Your task to perform on an android device: Search for pizza restaurants on Maps Image 0: 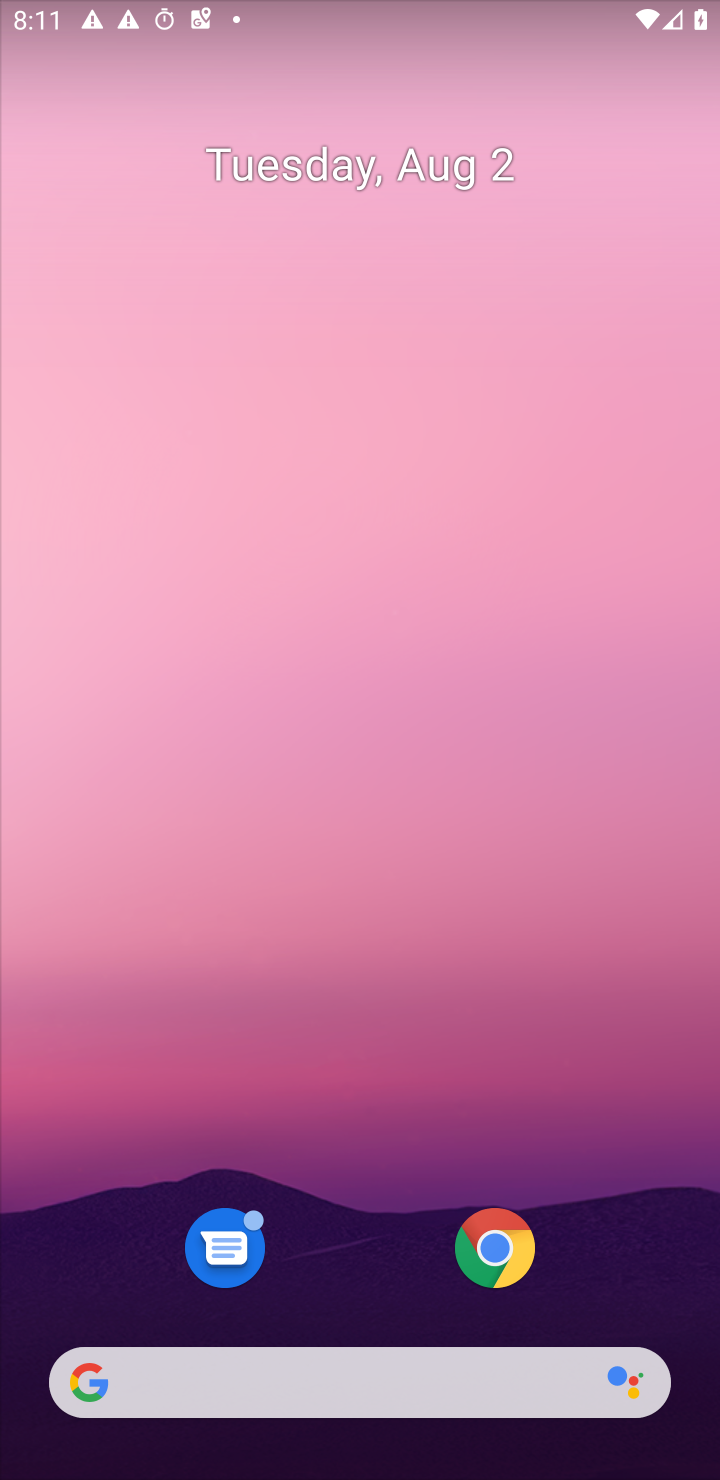
Step 0: drag from (289, 1246) to (462, 199)
Your task to perform on an android device: Search for pizza restaurants on Maps Image 1: 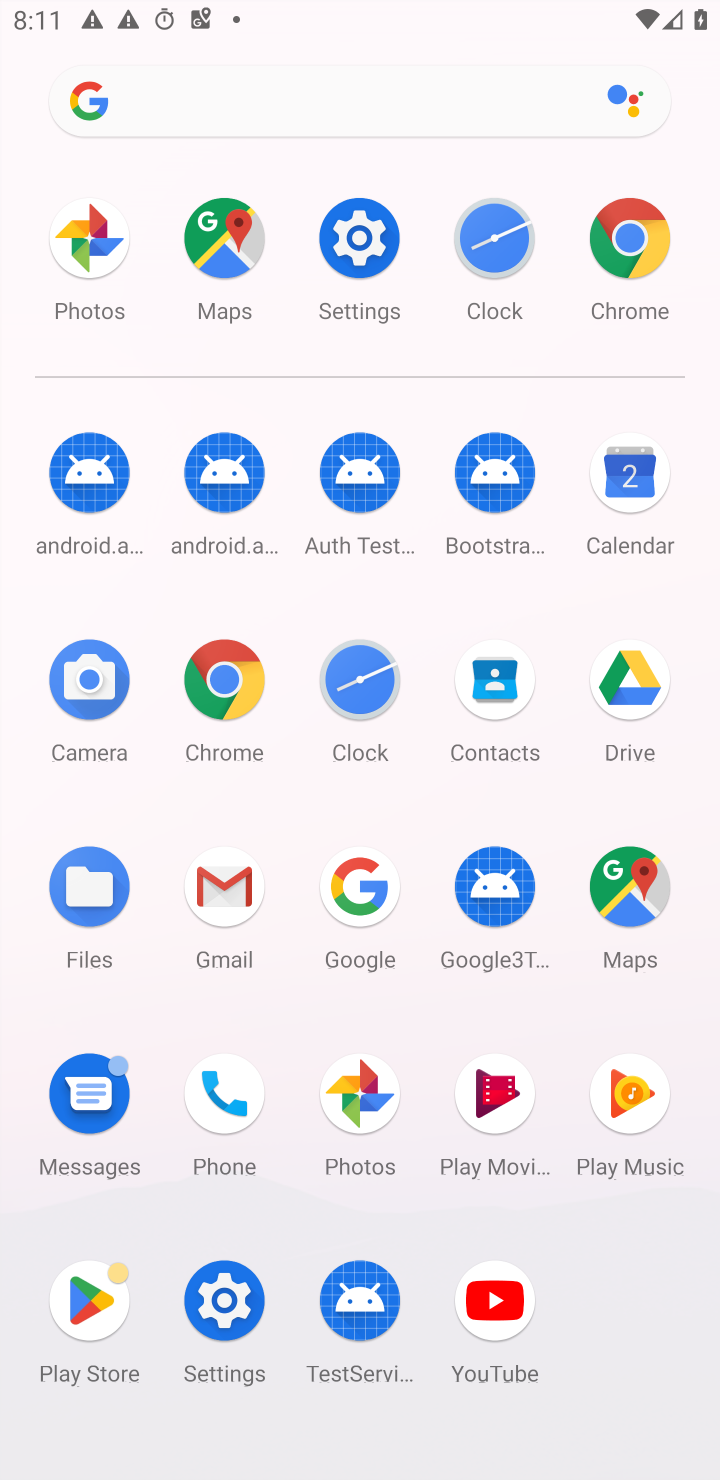
Step 1: click (624, 907)
Your task to perform on an android device: Search for pizza restaurants on Maps Image 2: 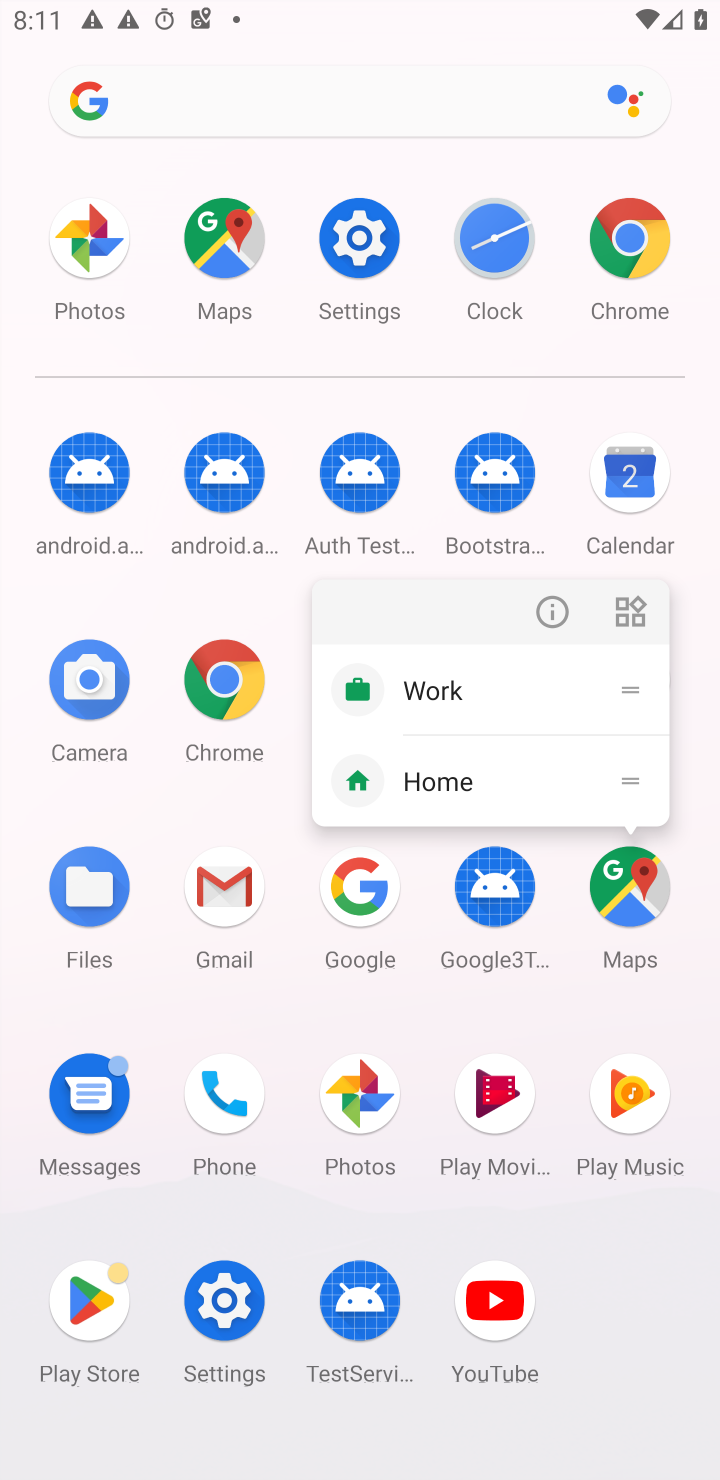
Step 2: click (546, 587)
Your task to perform on an android device: Search for pizza restaurants on Maps Image 3: 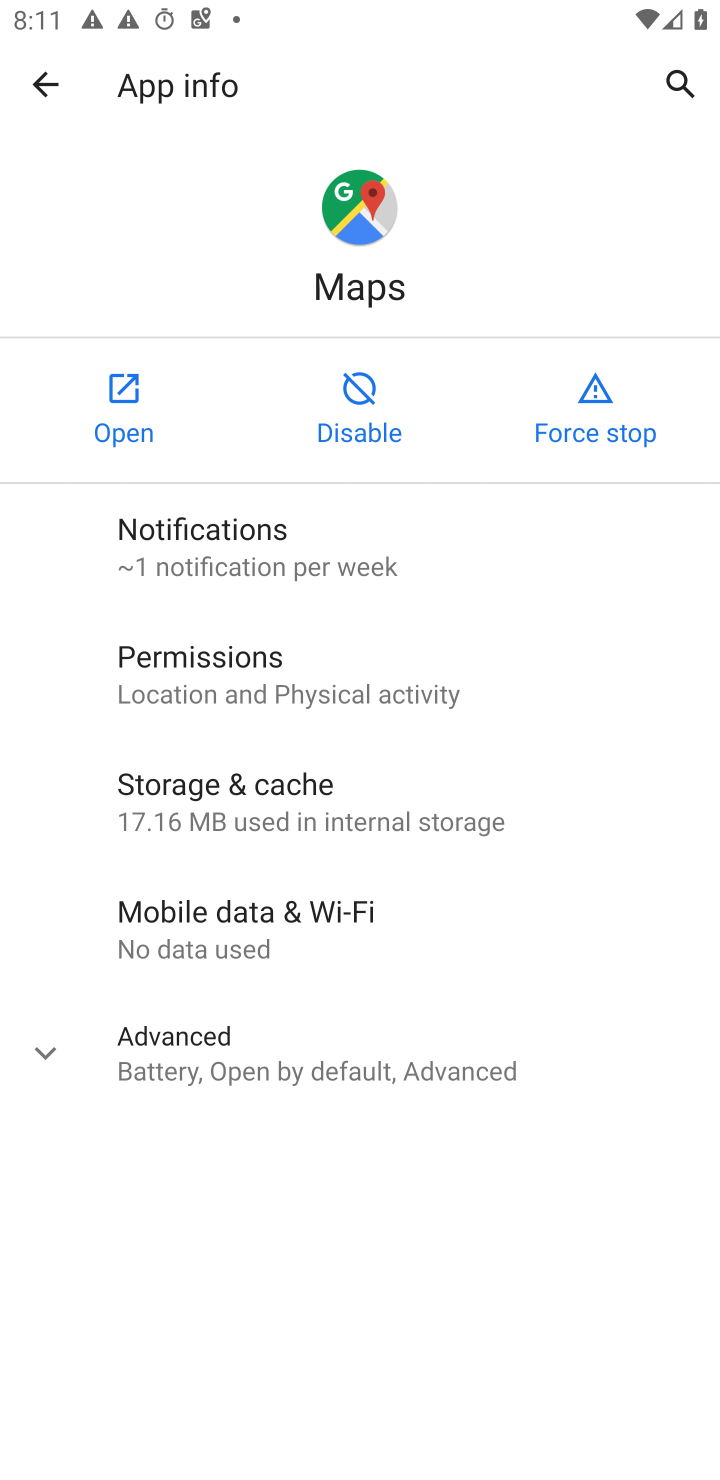
Step 3: click (124, 423)
Your task to perform on an android device: Search for pizza restaurants on Maps Image 4: 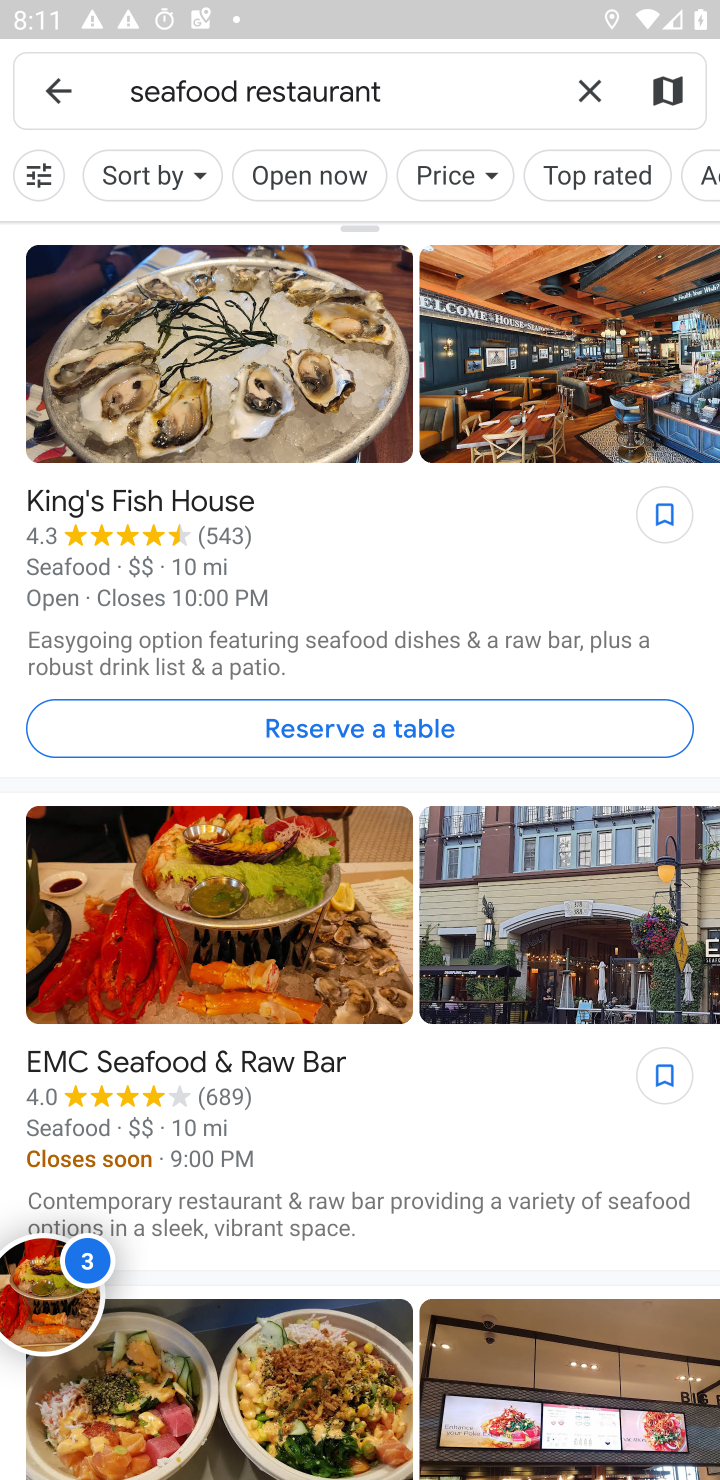
Step 4: click (587, 88)
Your task to perform on an android device: Search for pizza restaurants on Maps Image 5: 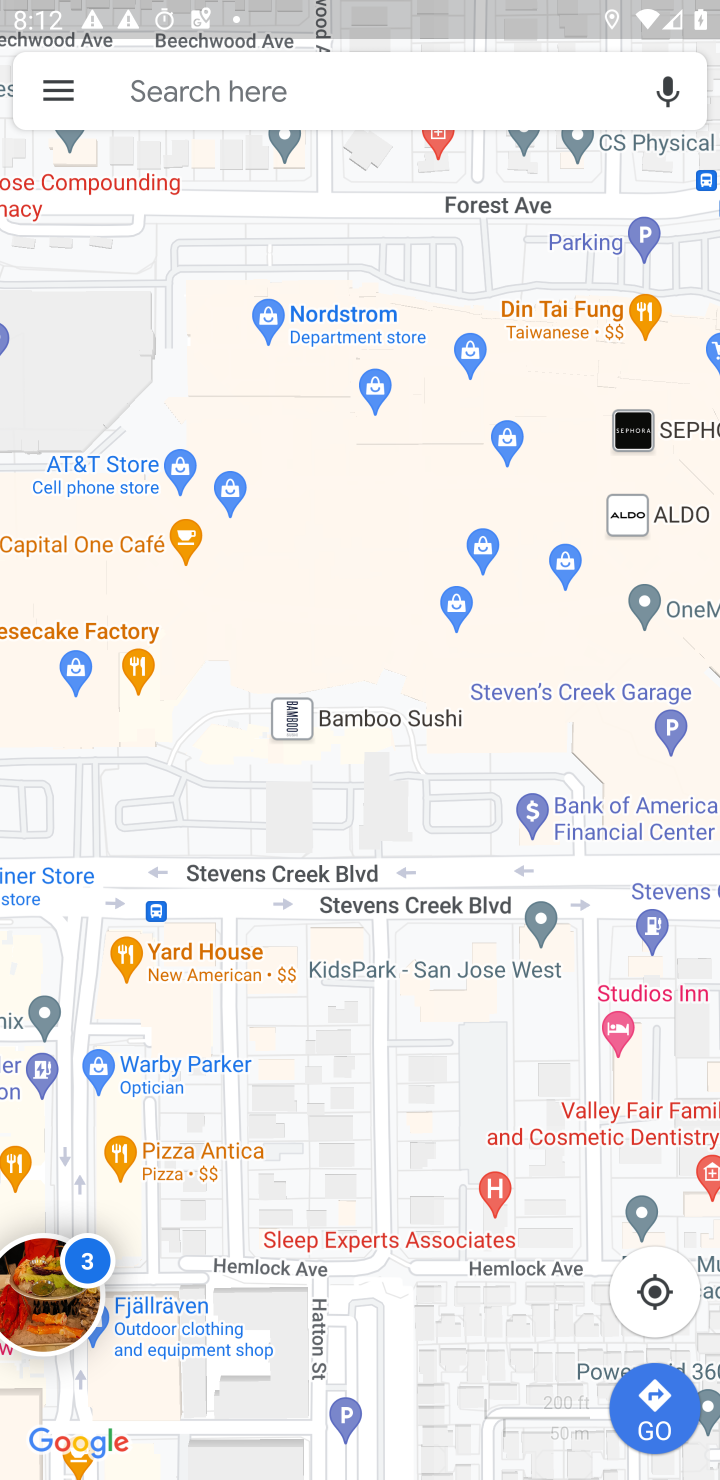
Step 5: click (193, 88)
Your task to perform on an android device: Search for pizza restaurants on Maps Image 6: 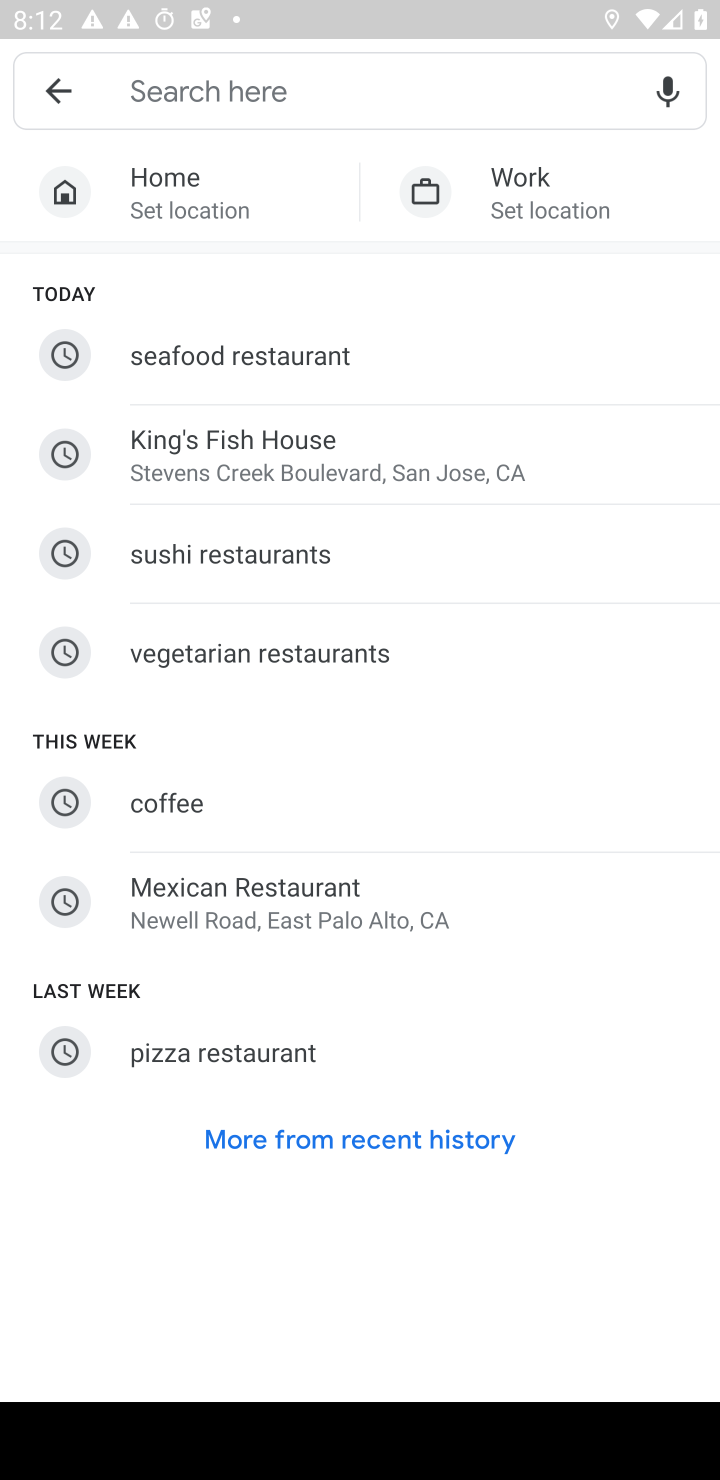
Step 6: click (169, 103)
Your task to perform on an android device: Search for pizza restaurants on Maps Image 7: 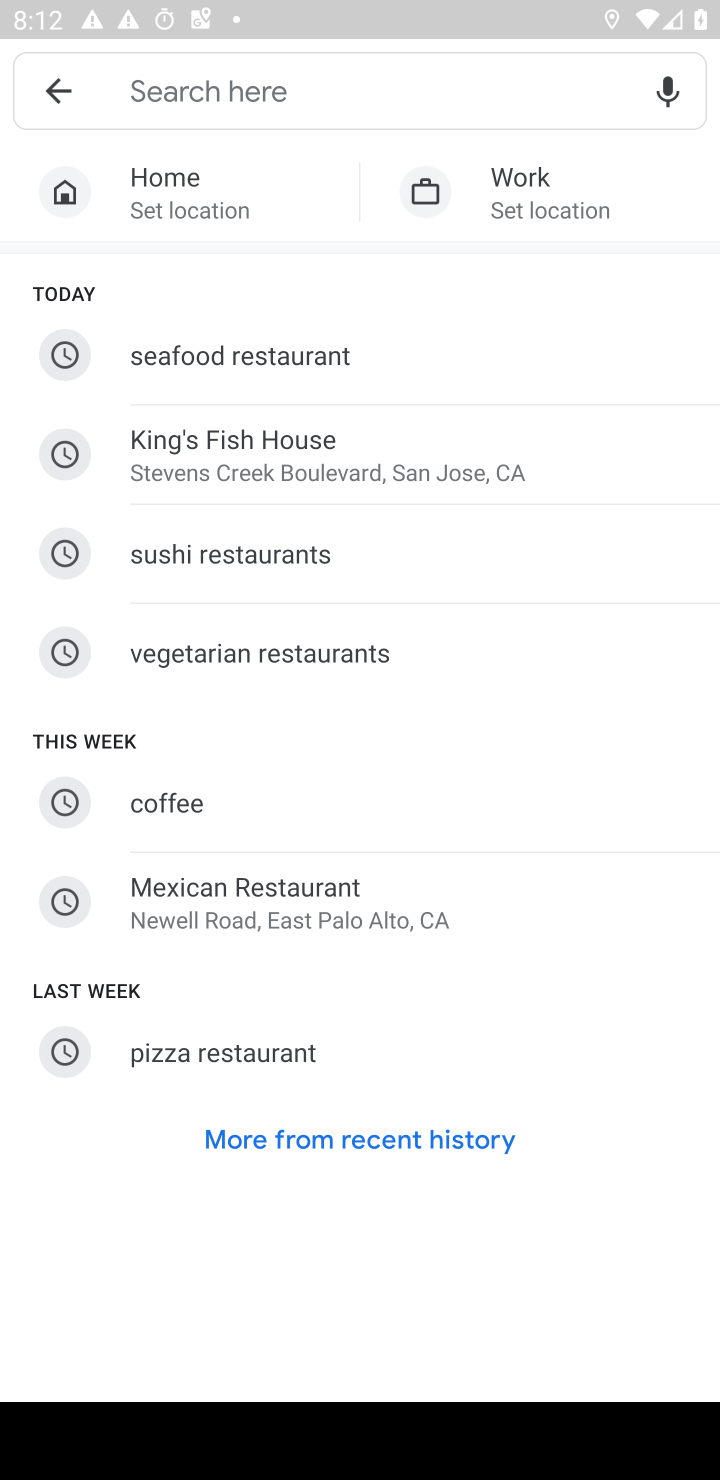
Step 7: click (234, 1068)
Your task to perform on an android device: Search for pizza restaurants on Maps Image 8: 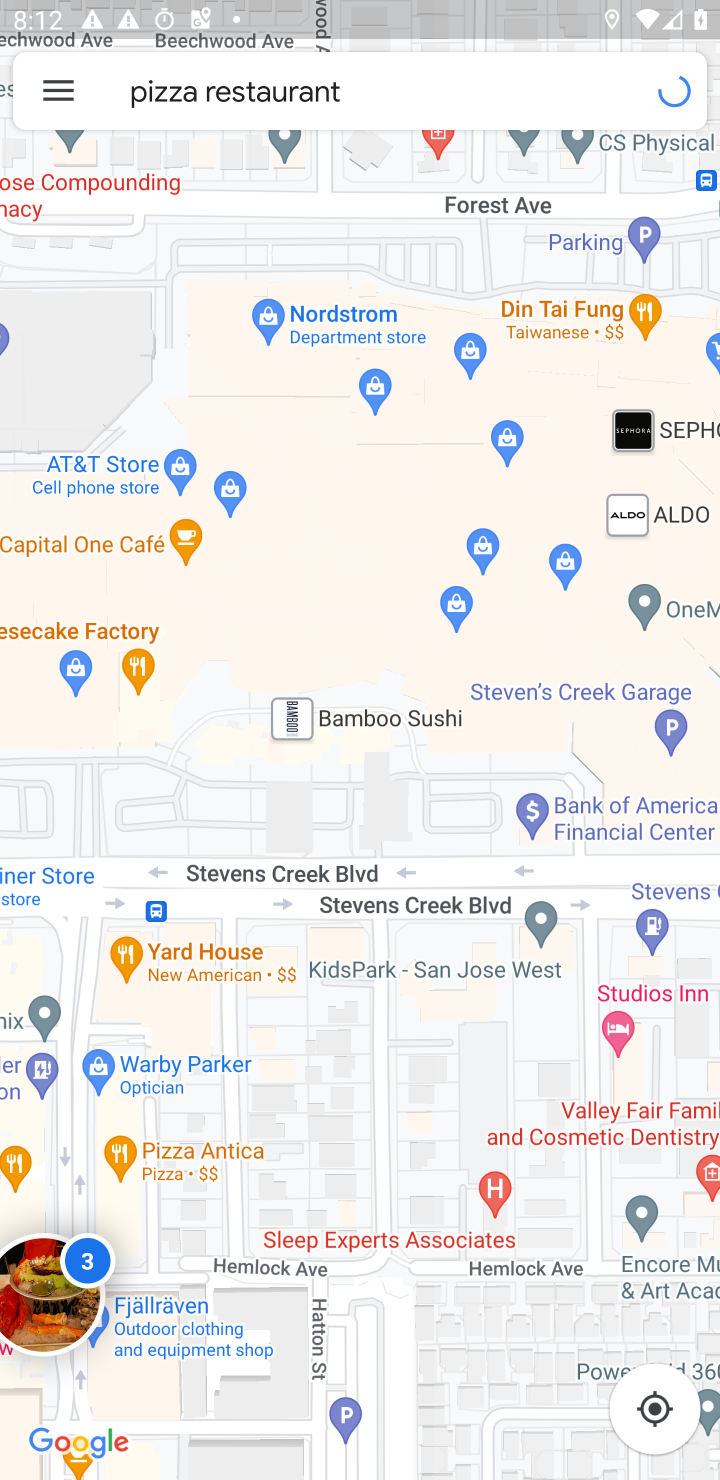
Step 8: task complete